Your task to perform on an android device: Go to notification settings Image 0: 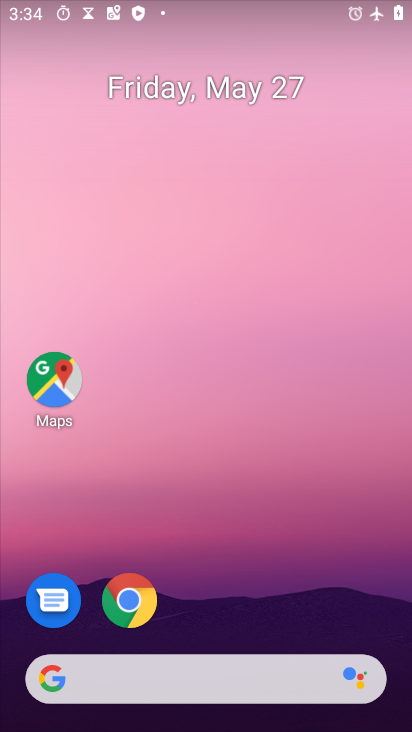
Step 0: drag from (286, 520) to (259, 42)
Your task to perform on an android device: Go to notification settings Image 1: 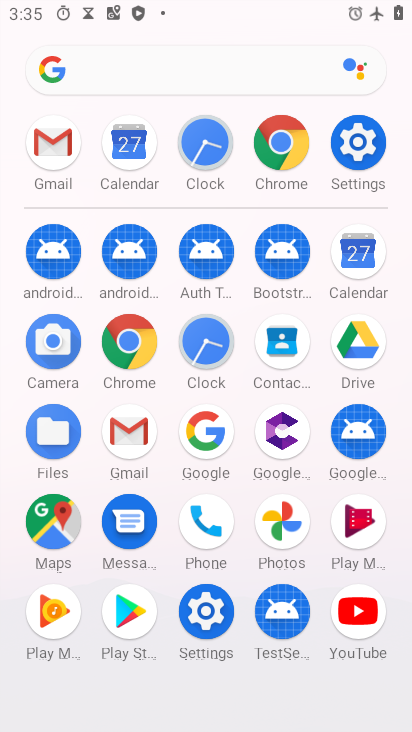
Step 1: drag from (4, 561) to (29, 251)
Your task to perform on an android device: Go to notification settings Image 2: 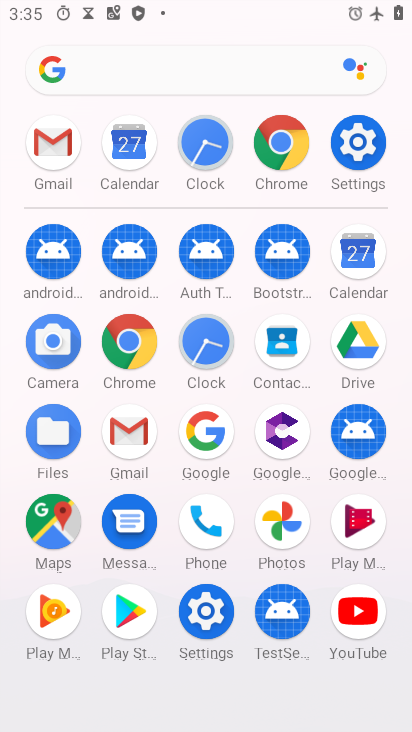
Step 2: click (207, 611)
Your task to perform on an android device: Go to notification settings Image 3: 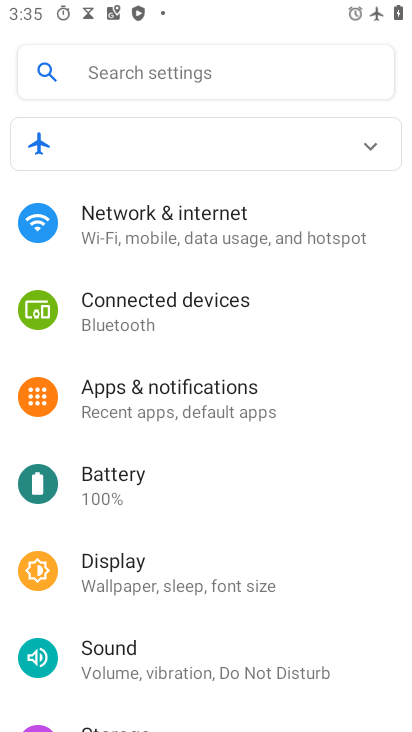
Step 3: drag from (271, 544) to (271, 195)
Your task to perform on an android device: Go to notification settings Image 4: 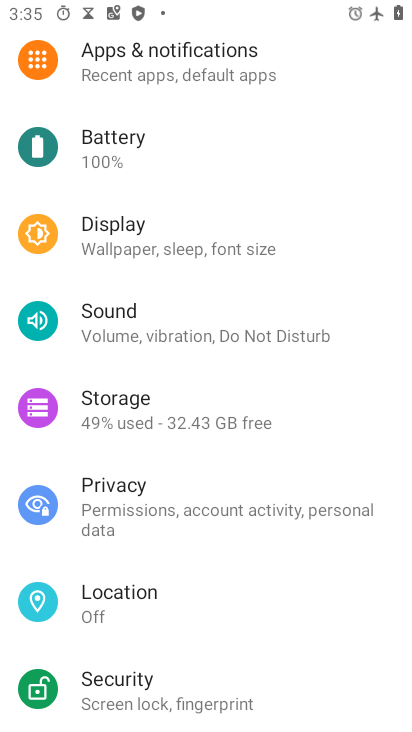
Step 4: drag from (276, 551) to (276, 153)
Your task to perform on an android device: Go to notification settings Image 5: 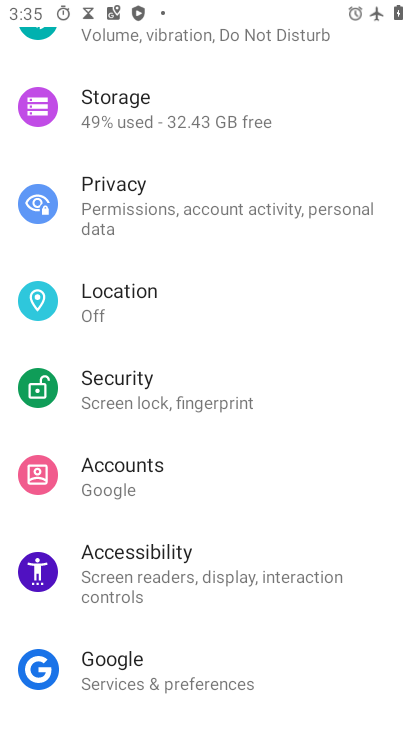
Step 5: drag from (264, 571) to (273, 163)
Your task to perform on an android device: Go to notification settings Image 6: 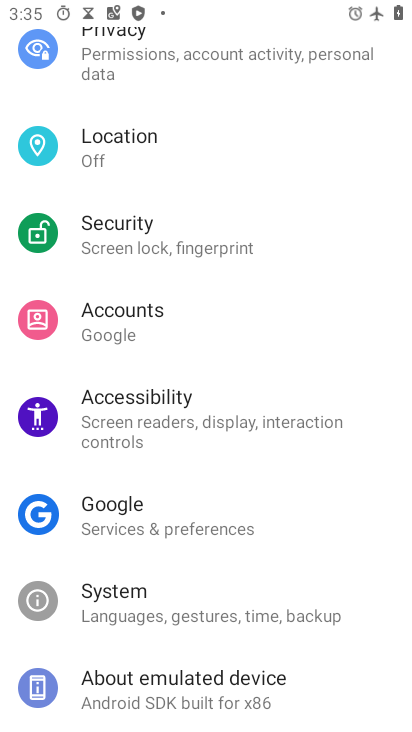
Step 6: drag from (258, 593) to (281, 187)
Your task to perform on an android device: Go to notification settings Image 7: 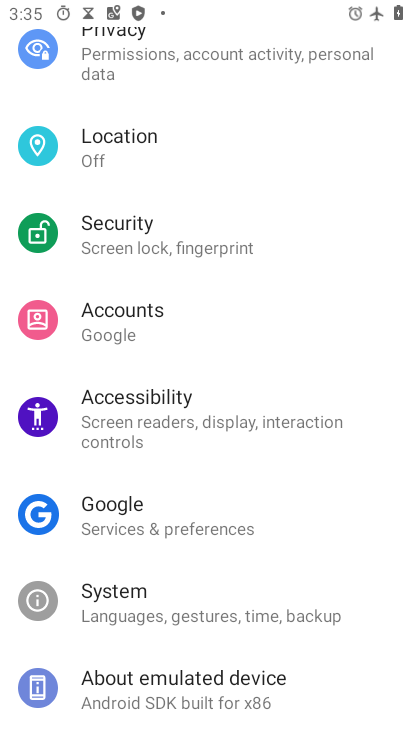
Step 7: drag from (298, 172) to (283, 618)
Your task to perform on an android device: Go to notification settings Image 8: 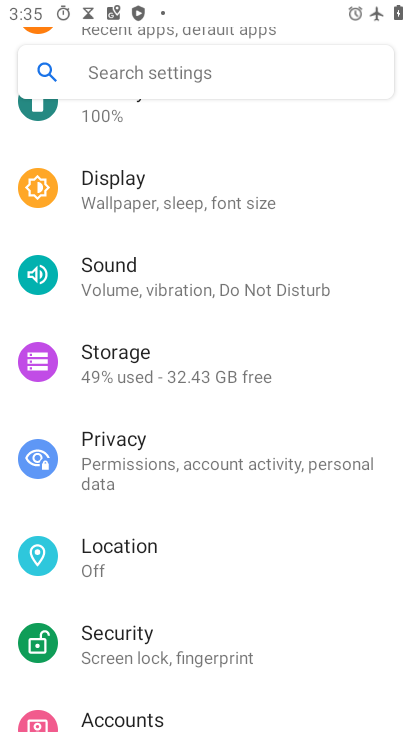
Step 8: drag from (307, 224) to (289, 616)
Your task to perform on an android device: Go to notification settings Image 9: 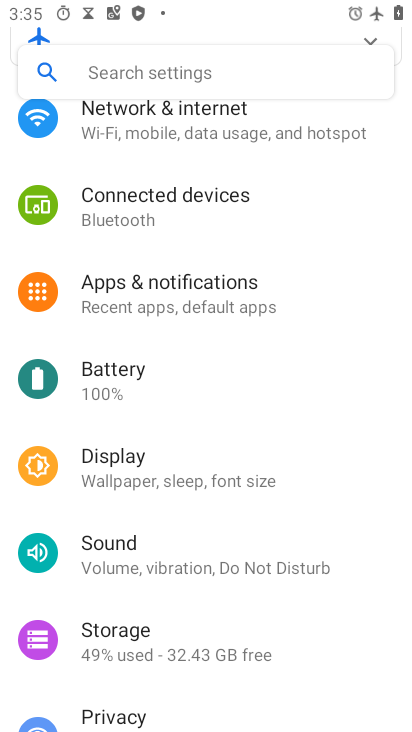
Step 9: drag from (319, 304) to (311, 618)
Your task to perform on an android device: Go to notification settings Image 10: 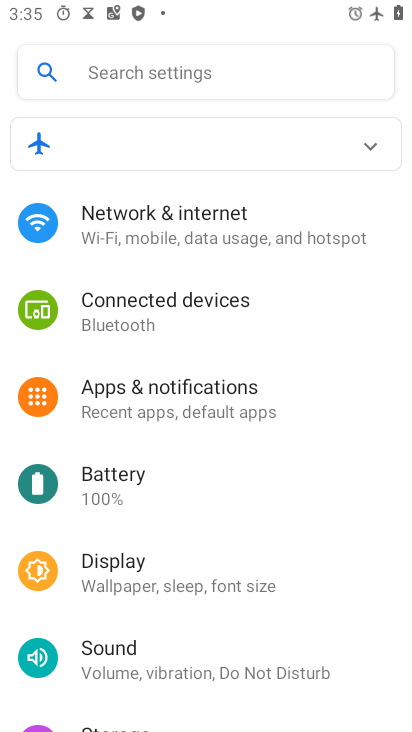
Step 10: drag from (316, 262) to (302, 580)
Your task to perform on an android device: Go to notification settings Image 11: 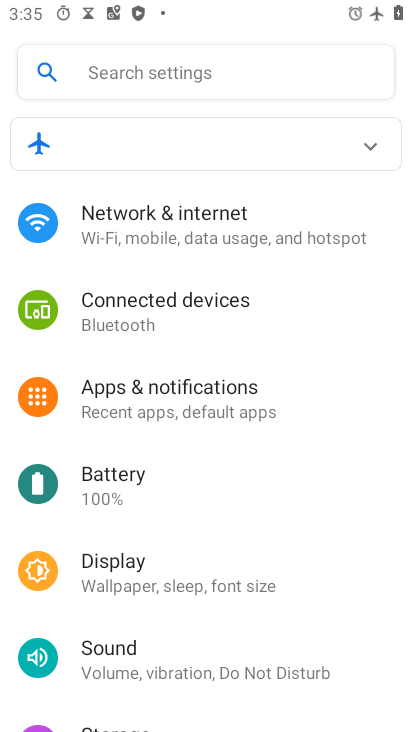
Step 11: click (195, 388)
Your task to perform on an android device: Go to notification settings Image 12: 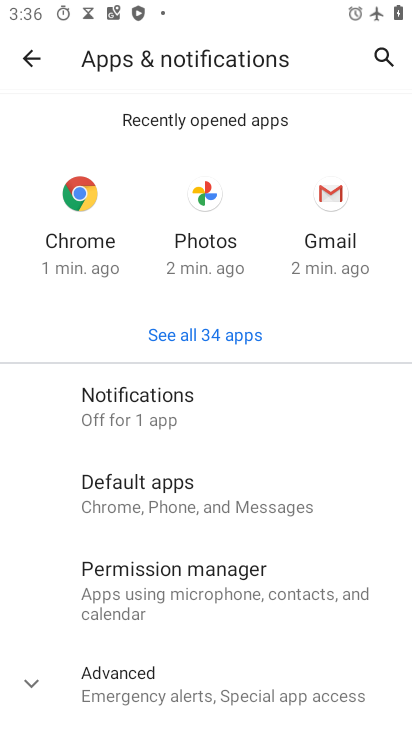
Step 12: click (195, 388)
Your task to perform on an android device: Go to notification settings Image 13: 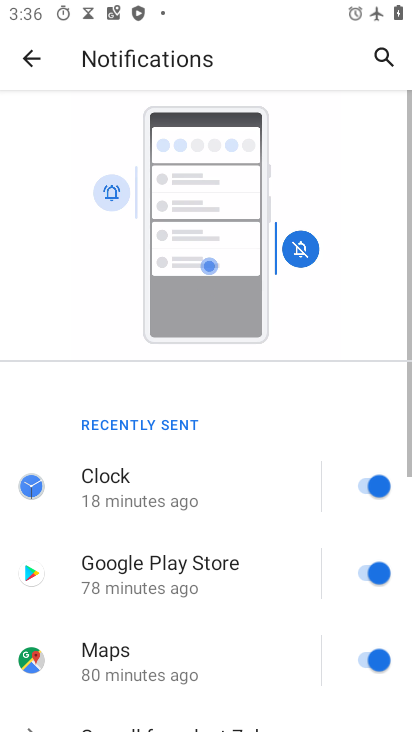
Step 13: drag from (228, 631) to (262, 201)
Your task to perform on an android device: Go to notification settings Image 14: 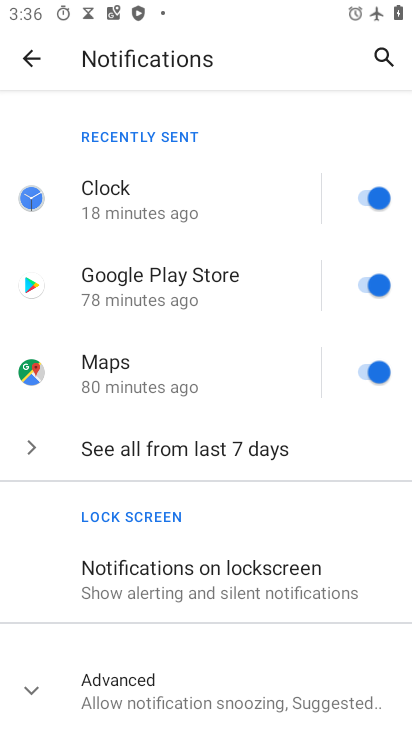
Step 14: drag from (260, 624) to (260, 273)
Your task to perform on an android device: Go to notification settings Image 15: 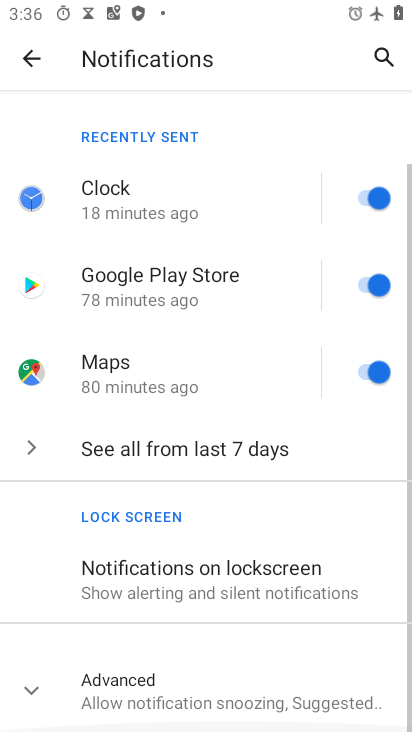
Step 15: click (28, 683)
Your task to perform on an android device: Go to notification settings Image 16: 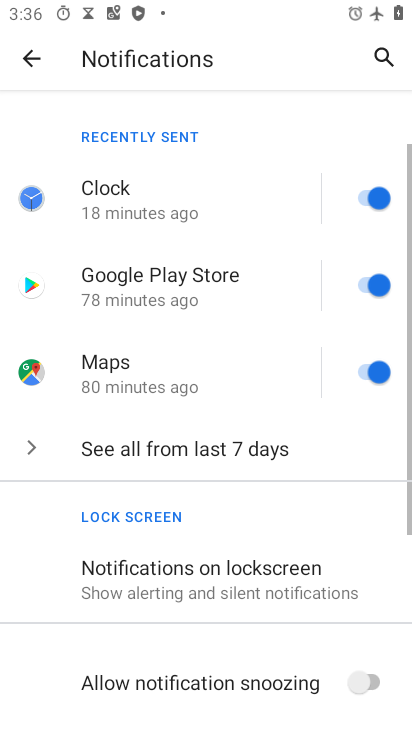
Step 16: task complete